Your task to perform on an android device: turn pop-ups off in chrome Image 0: 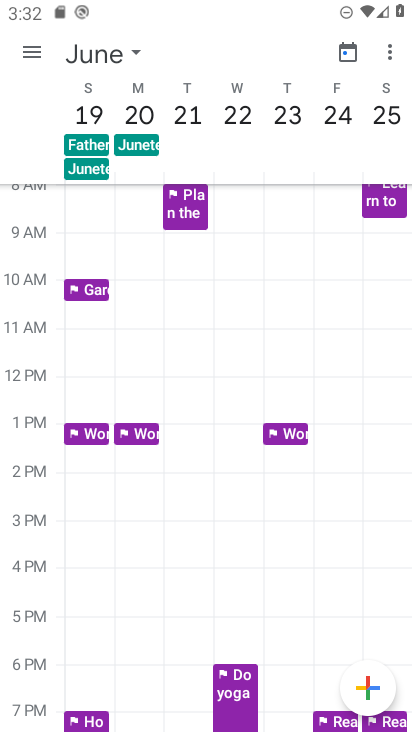
Step 0: press home button
Your task to perform on an android device: turn pop-ups off in chrome Image 1: 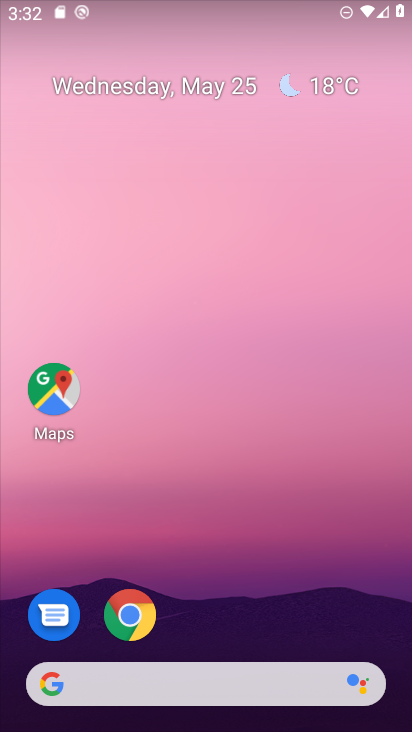
Step 1: click (131, 619)
Your task to perform on an android device: turn pop-ups off in chrome Image 2: 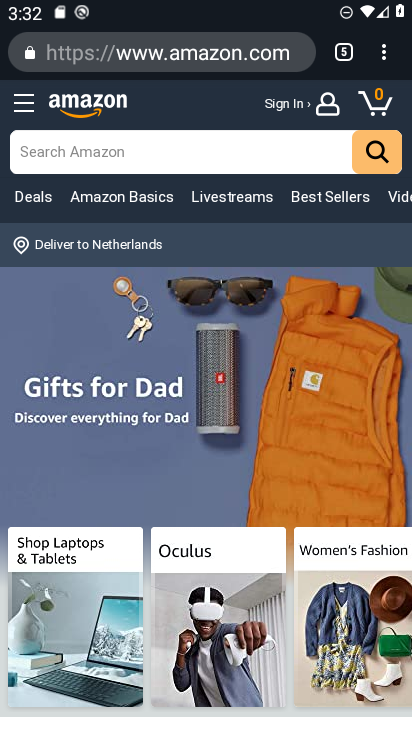
Step 2: click (381, 51)
Your task to perform on an android device: turn pop-ups off in chrome Image 3: 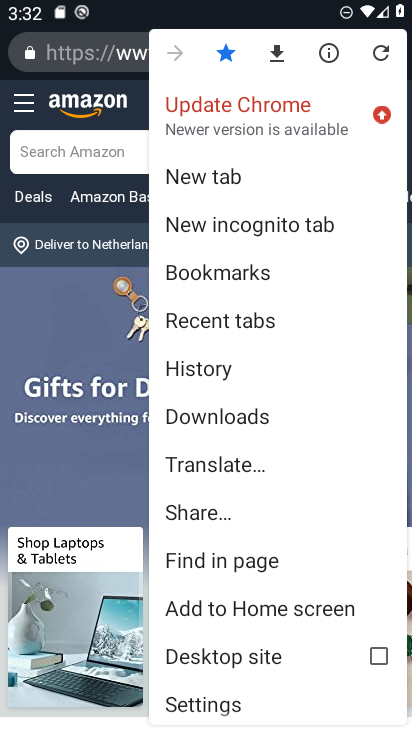
Step 3: click (261, 704)
Your task to perform on an android device: turn pop-ups off in chrome Image 4: 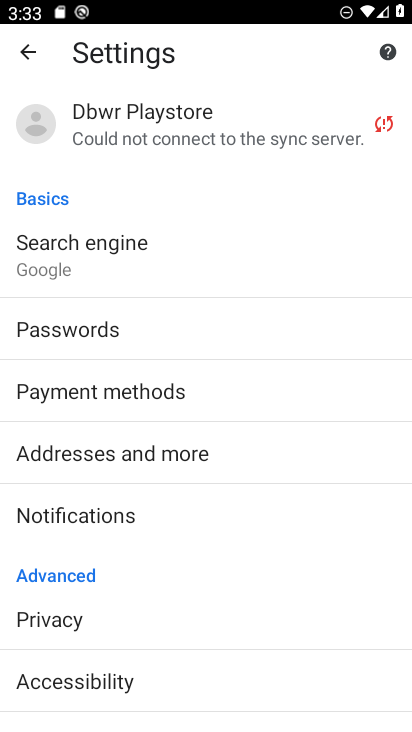
Step 4: drag from (251, 593) to (267, 258)
Your task to perform on an android device: turn pop-ups off in chrome Image 5: 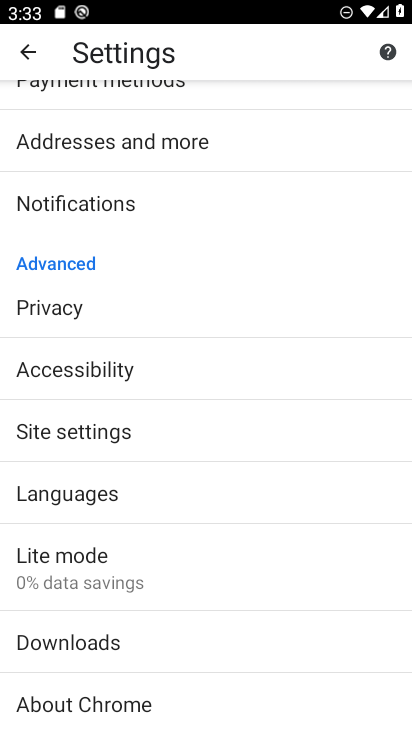
Step 5: click (192, 431)
Your task to perform on an android device: turn pop-ups off in chrome Image 6: 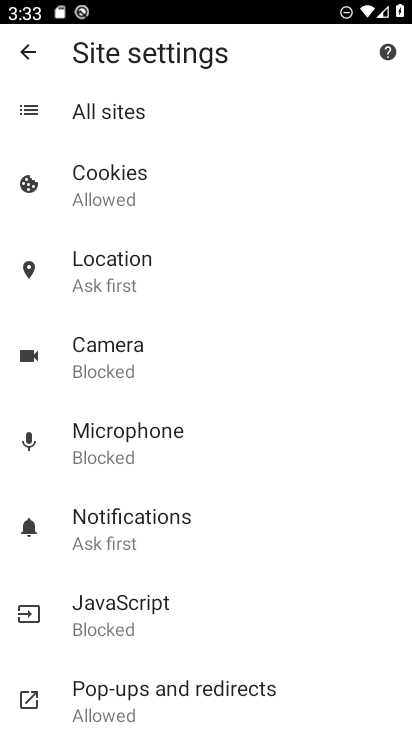
Step 6: click (190, 687)
Your task to perform on an android device: turn pop-ups off in chrome Image 7: 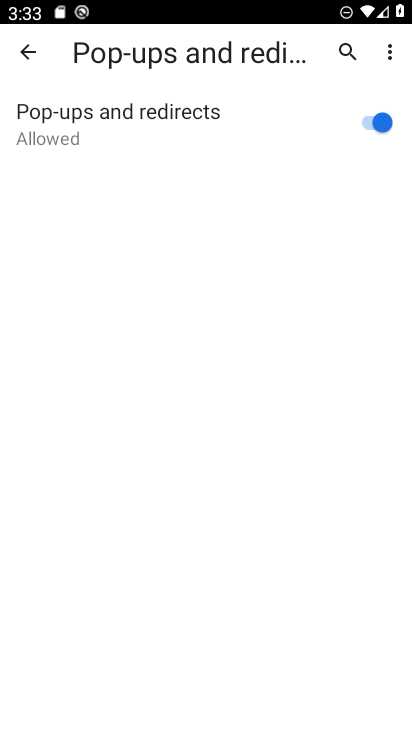
Step 7: click (380, 122)
Your task to perform on an android device: turn pop-ups off in chrome Image 8: 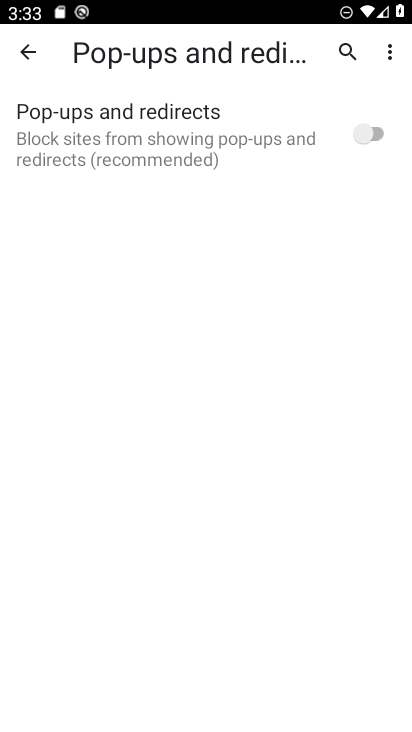
Step 8: task complete